Your task to perform on an android device: toggle pop-ups in chrome Image 0: 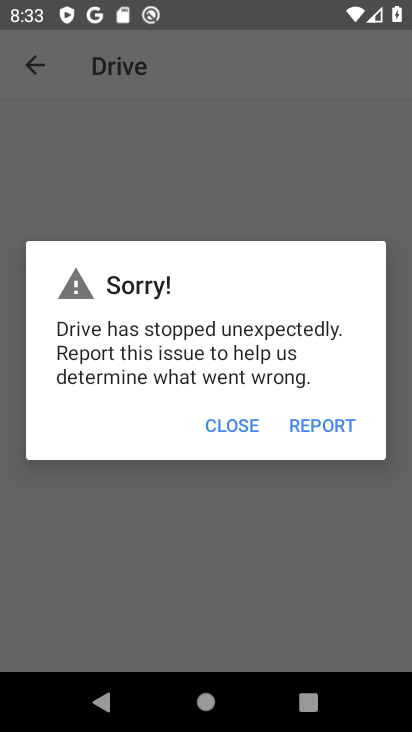
Step 0: press home button
Your task to perform on an android device: toggle pop-ups in chrome Image 1: 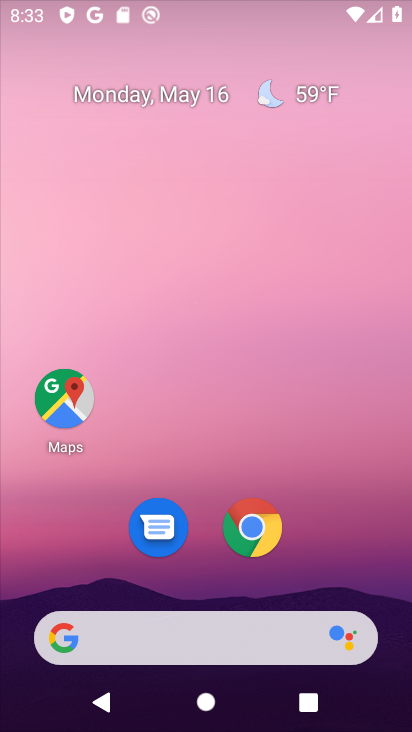
Step 1: drag from (290, 591) to (276, 291)
Your task to perform on an android device: toggle pop-ups in chrome Image 2: 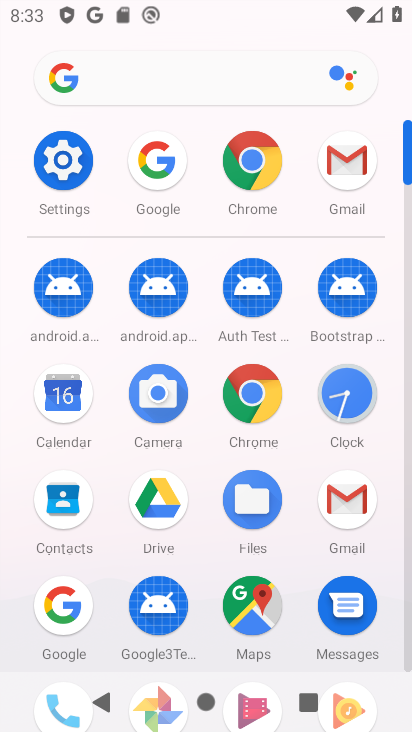
Step 2: click (255, 159)
Your task to perform on an android device: toggle pop-ups in chrome Image 3: 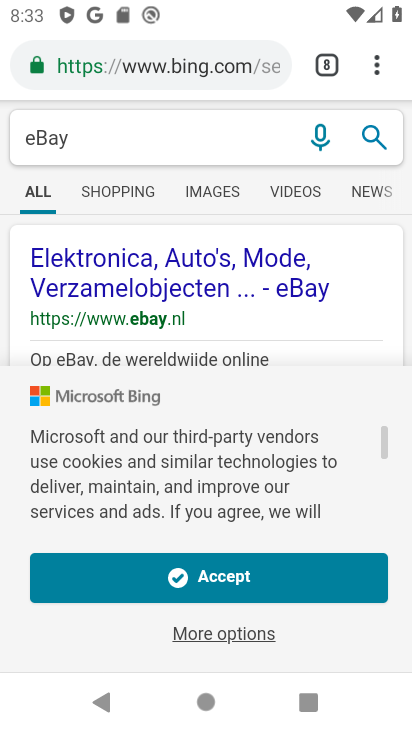
Step 3: click (367, 61)
Your task to perform on an android device: toggle pop-ups in chrome Image 4: 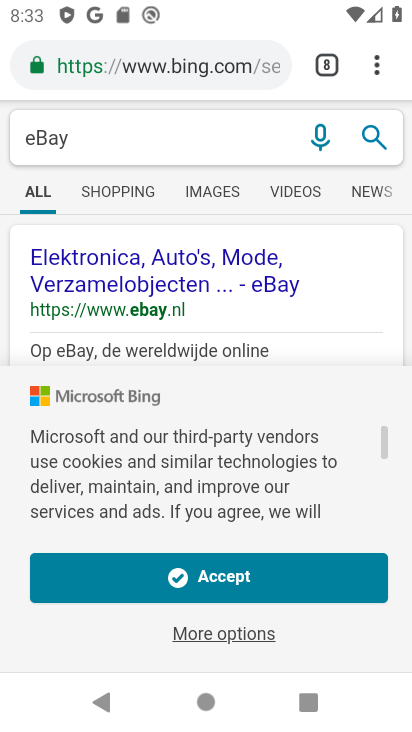
Step 4: click (368, 63)
Your task to perform on an android device: toggle pop-ups in chrome Image 5: 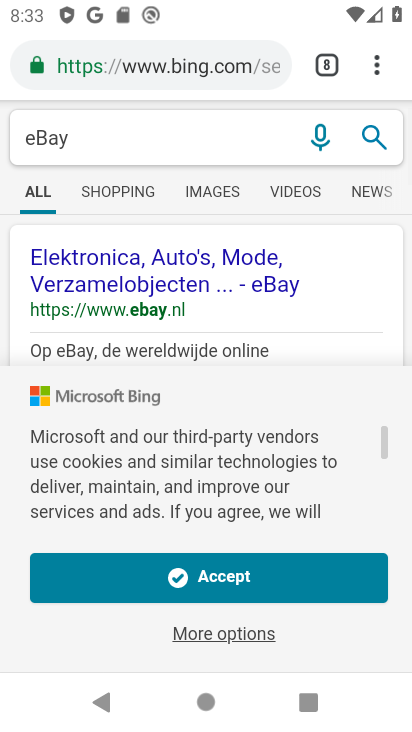
Step 5: click (369, 64)
Your task to perform on an android device: toggle pop-ups in chrome Image 6: 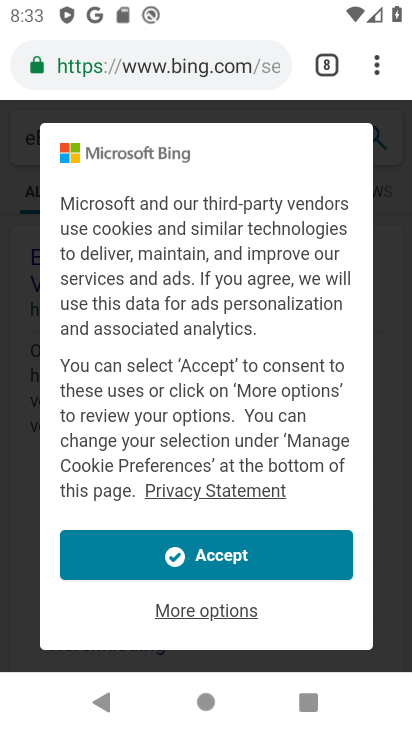
Step 6: click (381, 51)
Your task to perform on an android device: toggle pop-ups in chrome Image 7: 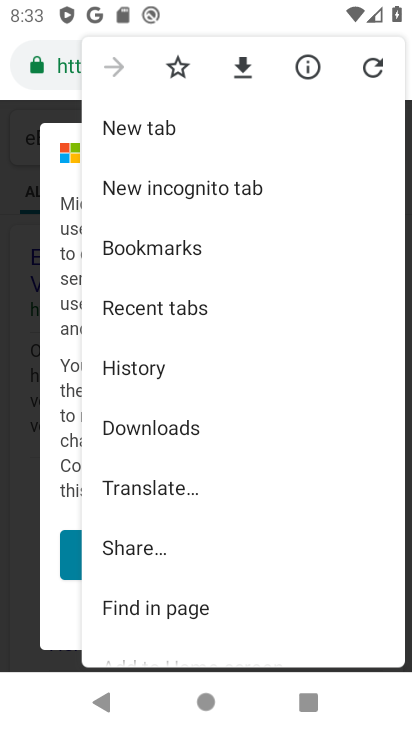
Step 7: drag from (191, 464) to (218, 199)
Your task to perform on an android device: toggle pop-ups in chrome Image 8: 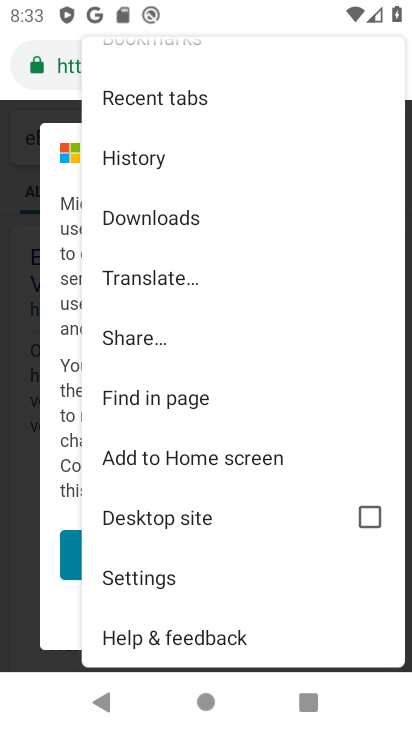
Step 8: click (192, 574)
Your task to perform on an android device: toggle pop-ups in chrome Image 9: 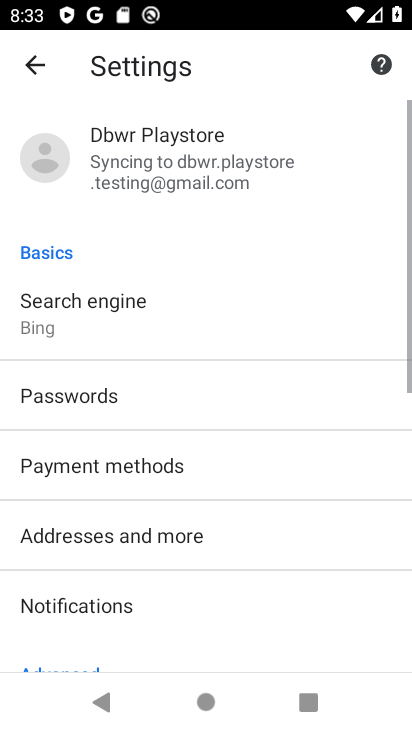
Step 9: drag from (201, 560) to (255, 140)
Your task to perform on an android device: toggle pop-ups in chrome Image 10: 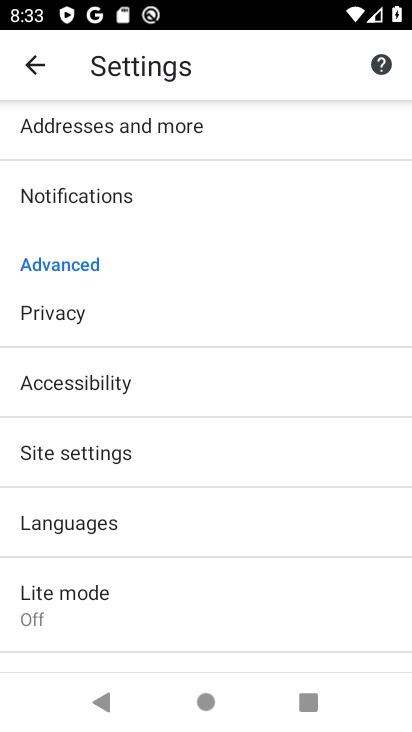
Step 10: drag from (142, 554) to (184, 317)
Your task to perform on an android device: toggle pop-ups in chrome Image 11: 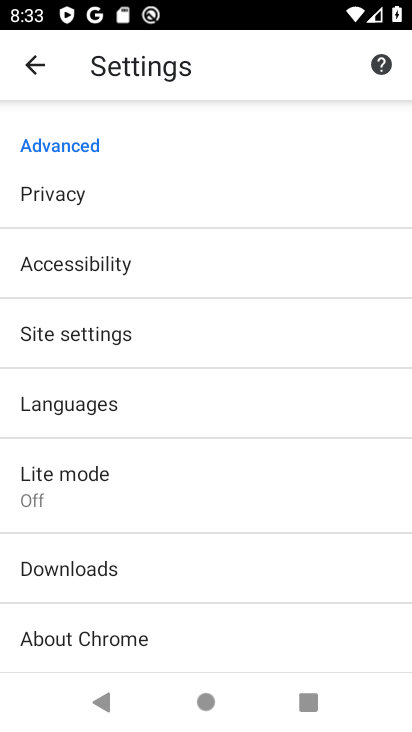
Step 11: click (138, 329)
Your task to perform on an android device: toggle pop-ups in chrome Image 12: 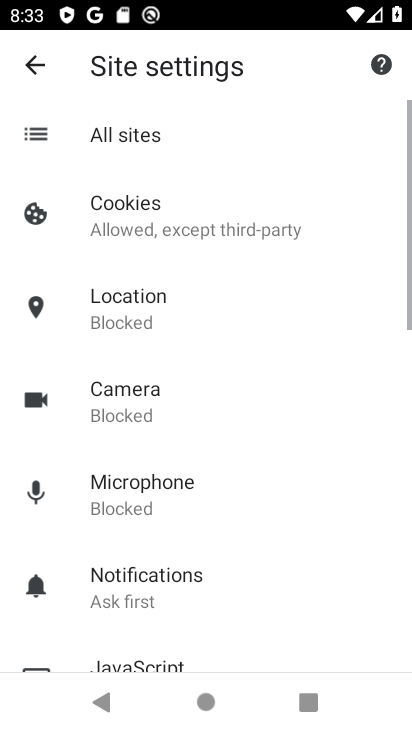
Step 12: drag from (176, 590) to (211, 224)
Your task to perform on an android device: toggle pop-ups in chrome Image 13: 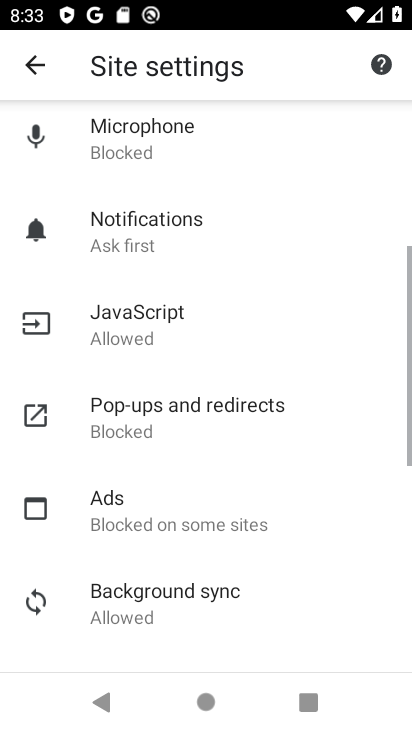
Step 13: click (173, 432)
Your task to perform on an android device: toggle pop-ups in chrome Image 14: 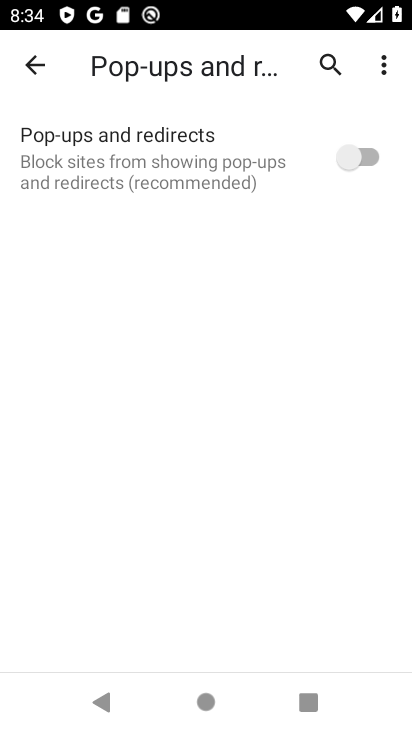
Step 14: click (357, 148)
Your task to perform on an android device: toggle pop-ups in chrome Image 15: 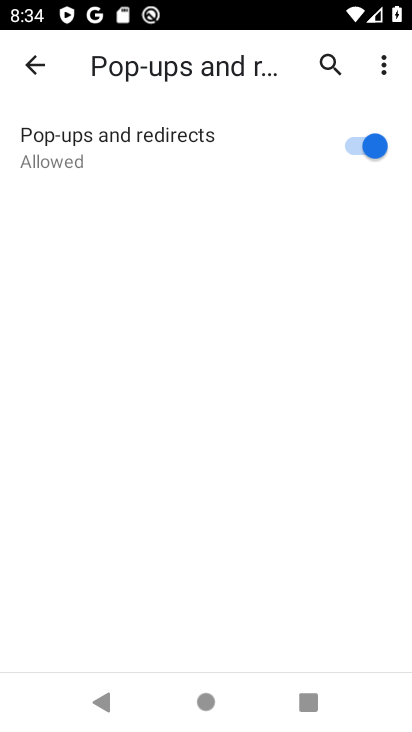
Step 15: task complete